Your task to perform on an android device: Go to display settings Image 0: 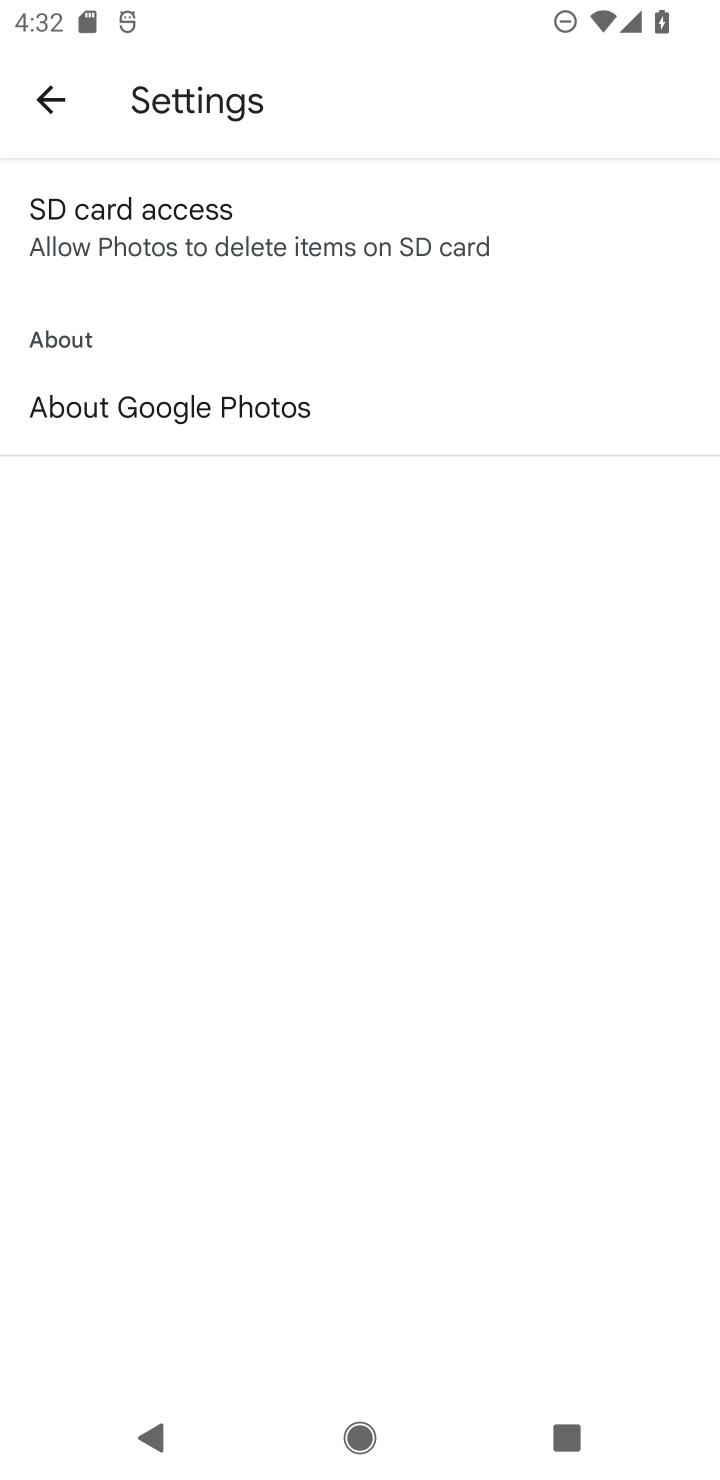
Step 0: press home button
Your task to perform on an android device: Go to display settings Image 1: 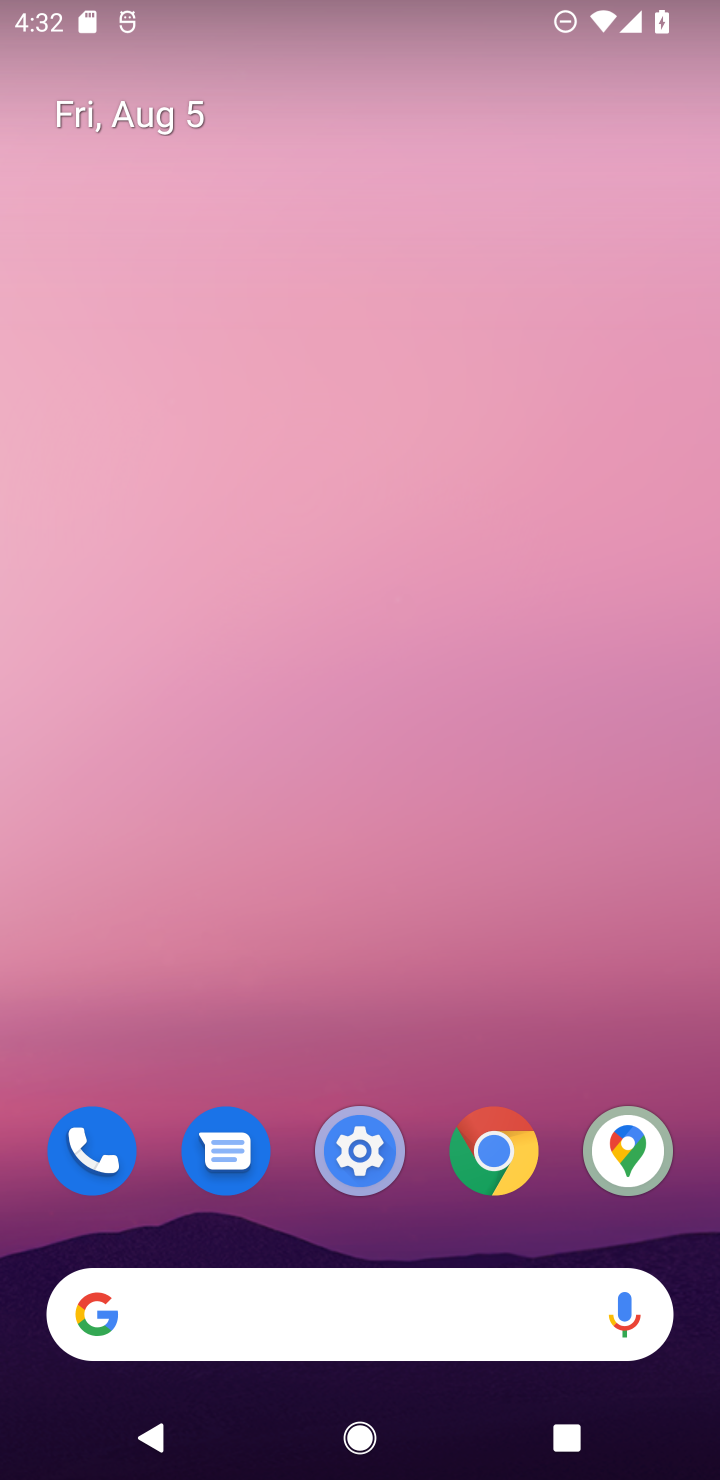
Step 1: press home button
Your task to perform on an android device: Go to display settings Image 2: 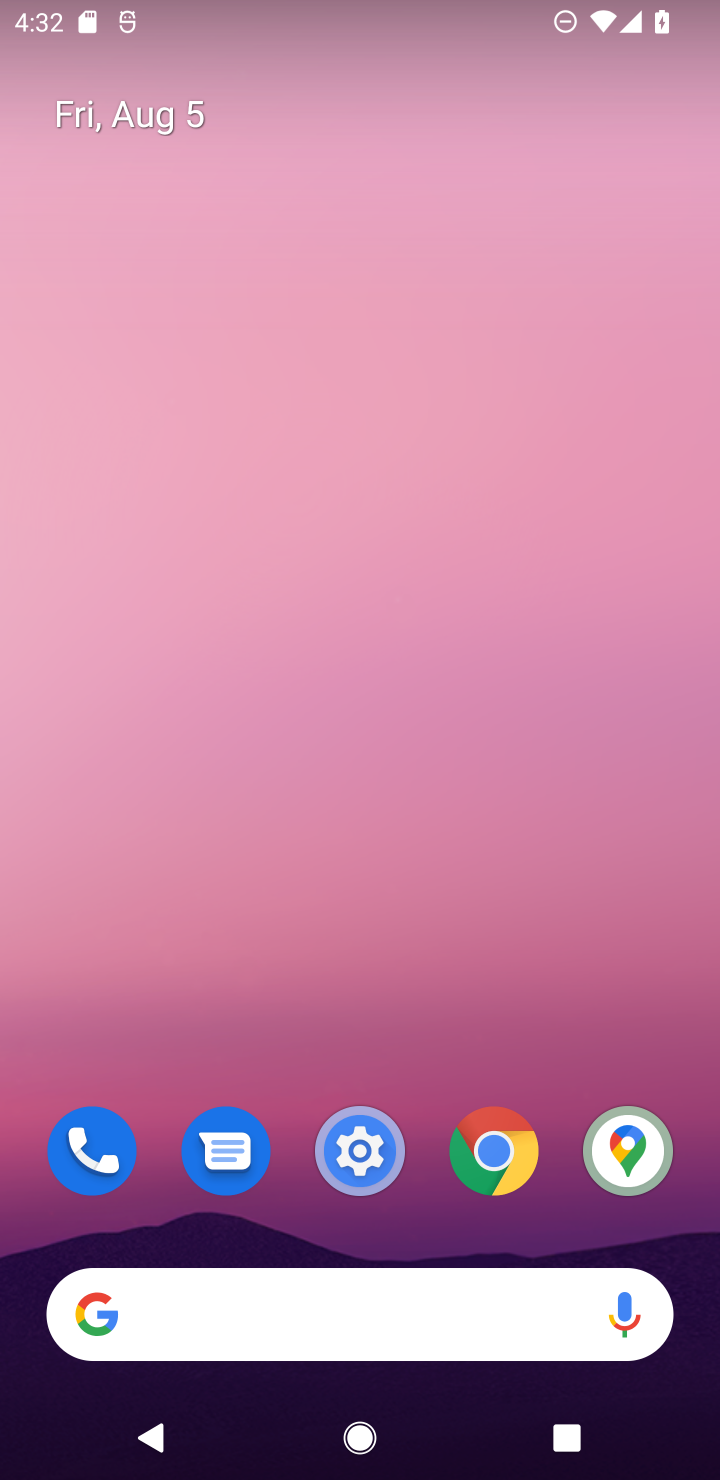
Step 2: press home button
Your task to perform on an android device: Go to display settings Image 3: 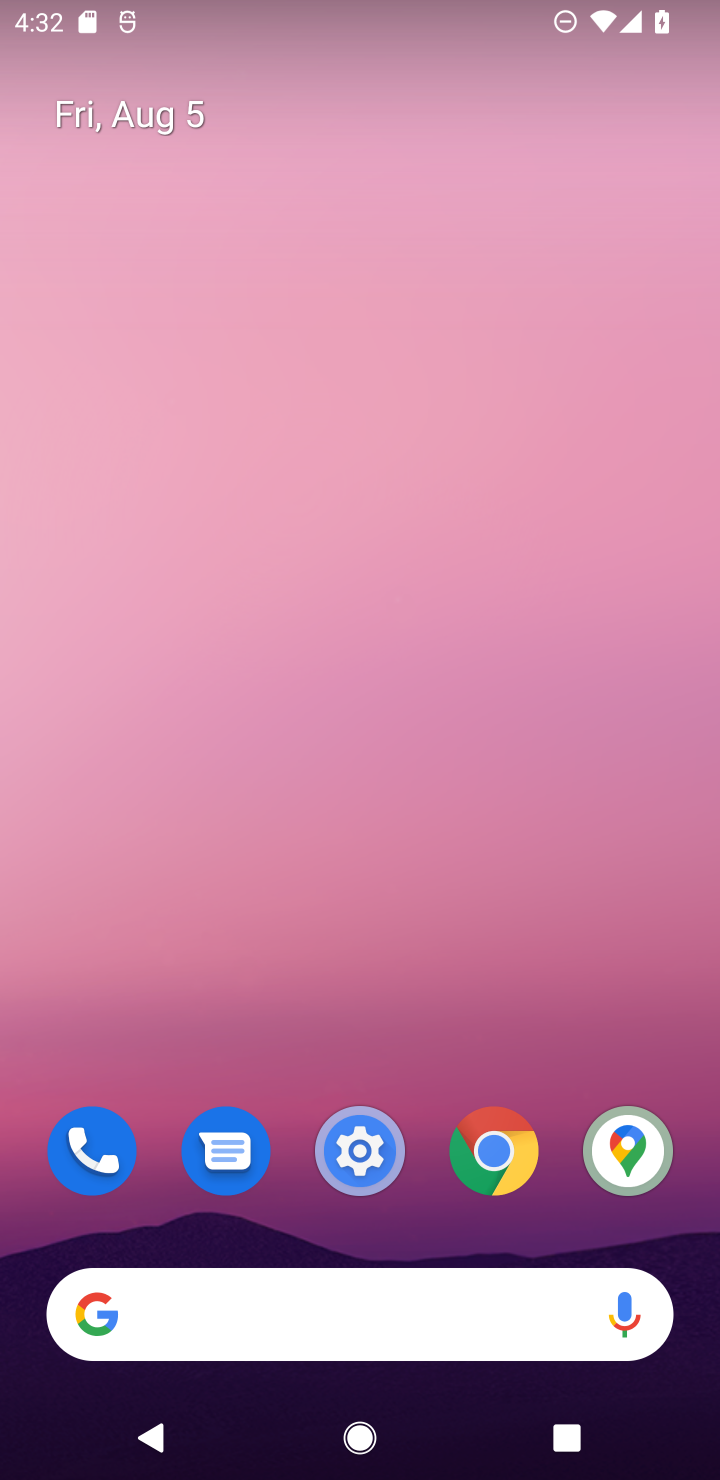
Step 3: click (359, 1146)
Your task to perform on an android device: Go to display settings Image 4: 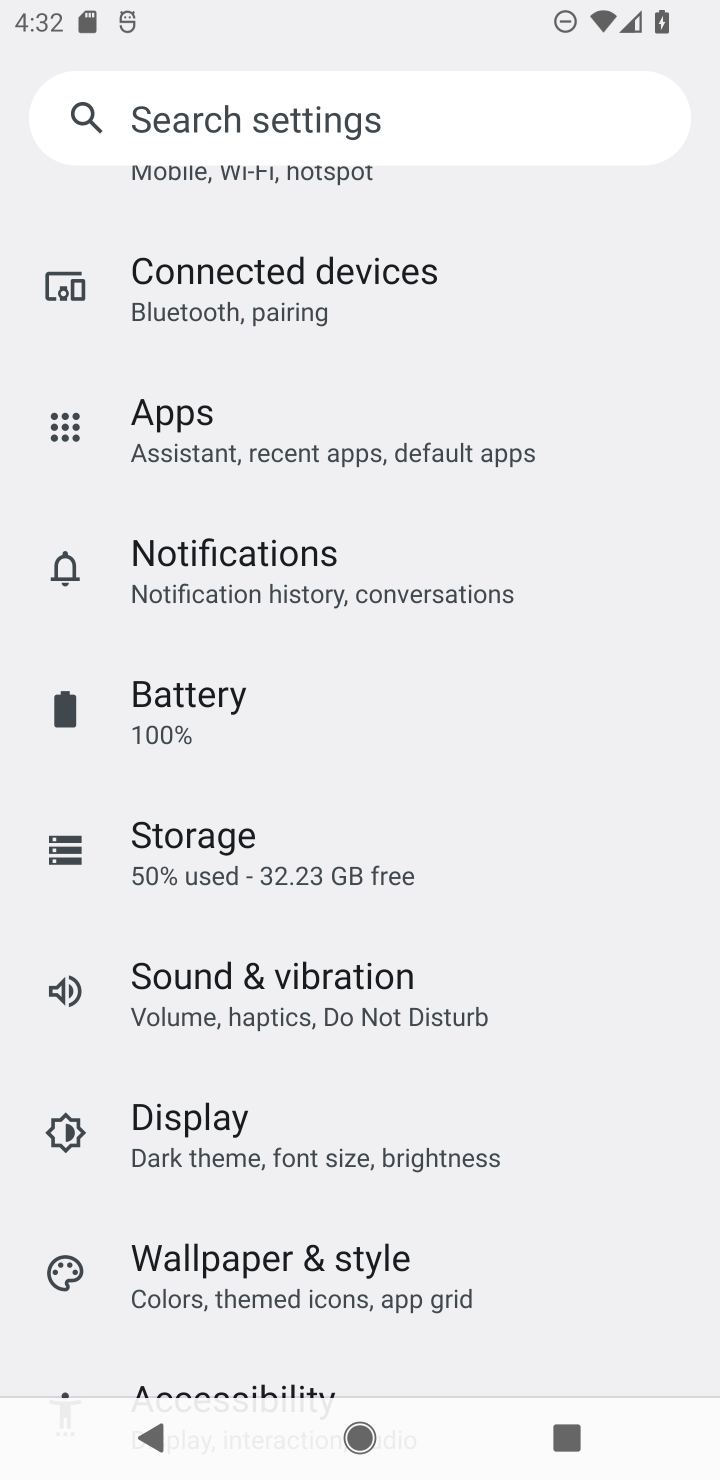
Step 4: click (238, 1110)
Your task to perform on an android device: Go to display settings Image 5: 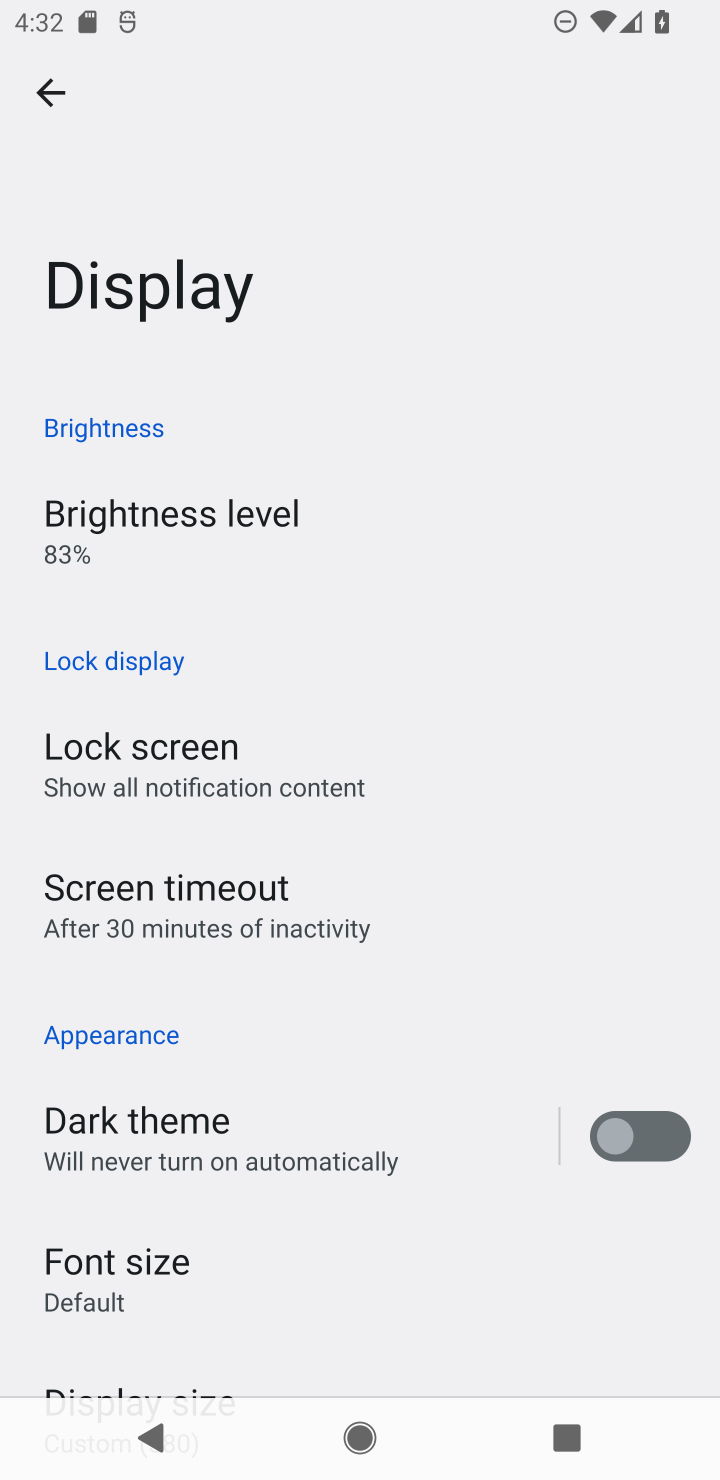
Step 5: task complete